Your task to perform on an android device: change alarm snooze length Image 0: 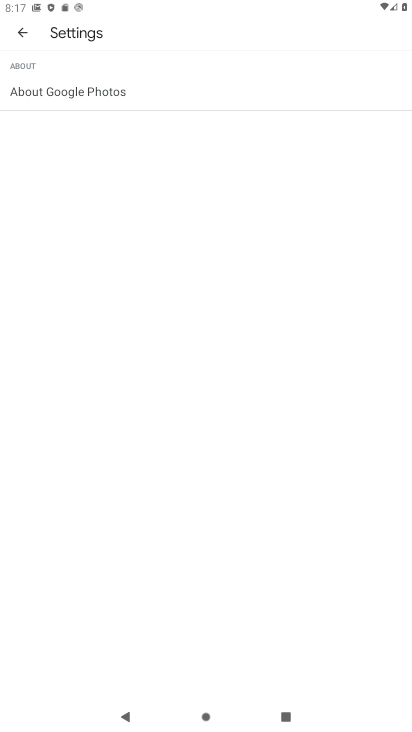
Step 0: press home button
Your task to perform on an android device: change alarm snooze length Image 1: 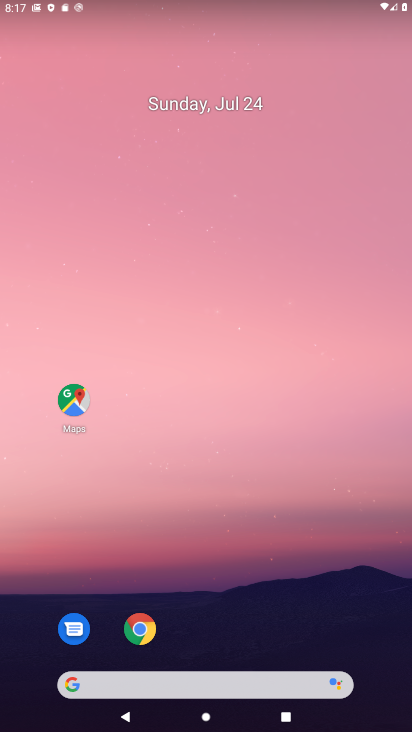
Step 1: drag from (222, 621) to (135, 12)
Your task to perform on an android device: change alarm snooze length Image 2: 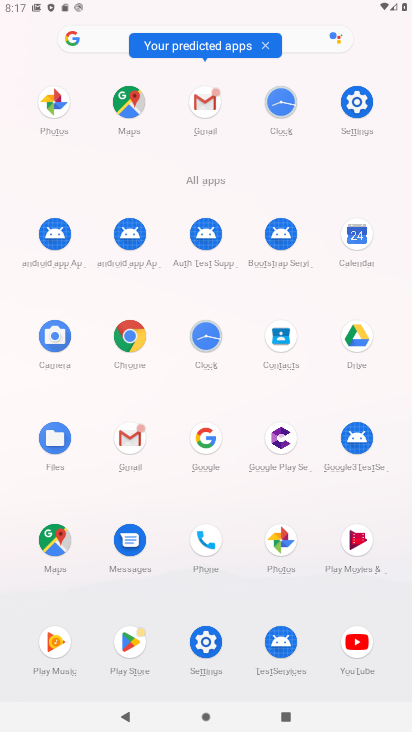
Step 2: click (201, 341)
Your task to perform on an android device: change alarm snooze length Image 3: 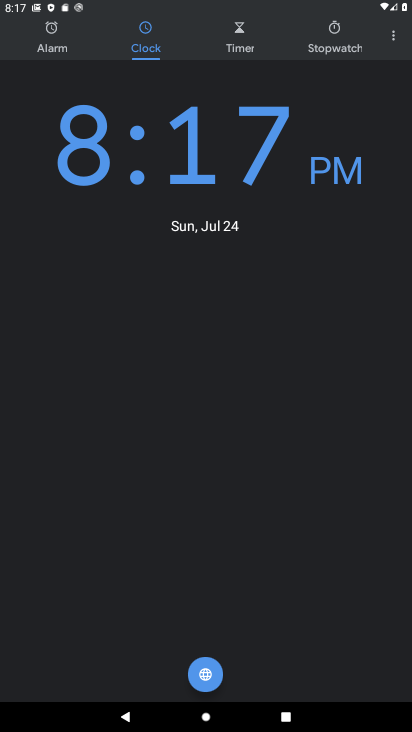
Step 3: click (392, 44)
Your task to perform on an android device: change alarm snooze length Image 4: 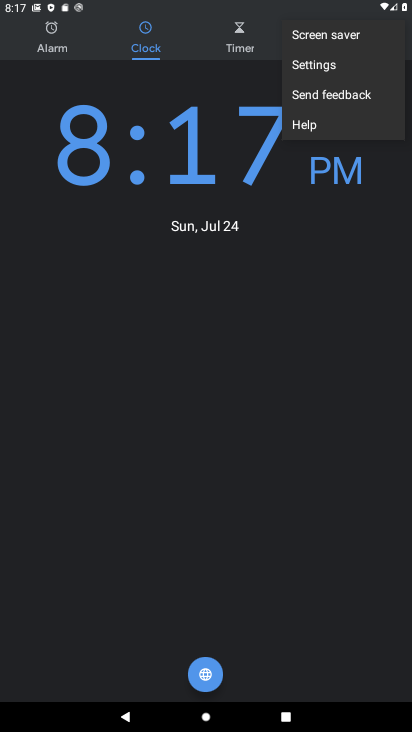
Step 4: click (321, 67)
Your task to perform on an android device: change alarm snooze length Image 5: 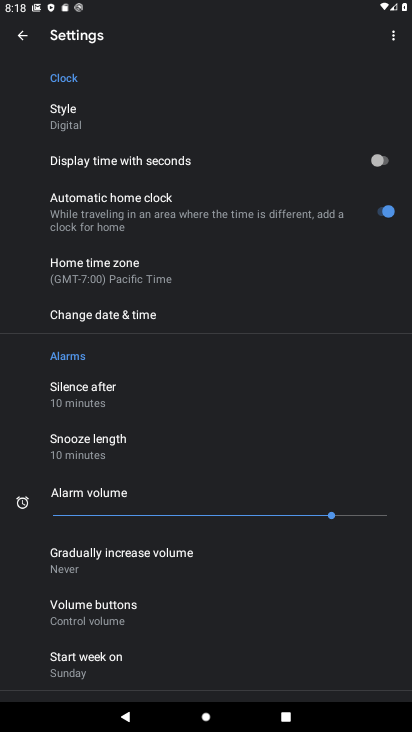
Step 5: drag from (101, 637) to (143, 366)
Your task to perform on an android device: change alarm snooze length Image 6: 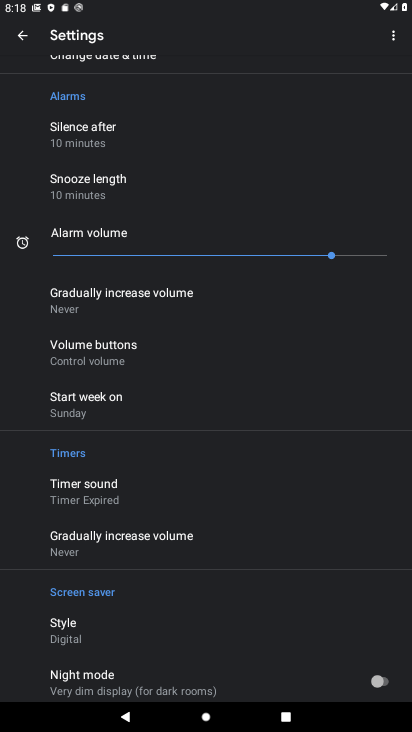
Step 6: drag from (120, 624) to (180, 341)
Your task to perform on an android device: change alarm snooze length Image 7: 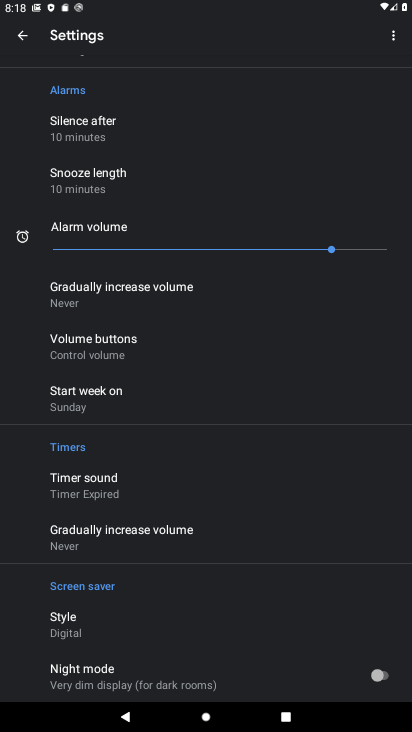
Step 7: click (118, 188)
Your task to perform on an android device: change alarm snooze length Image 8: 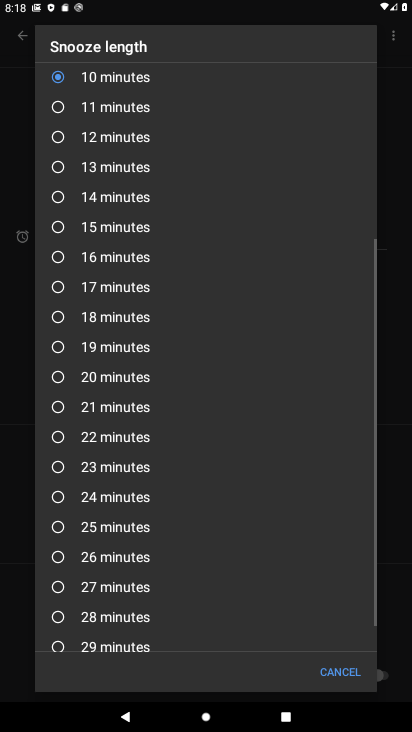
Step 8: click (100, 206)
Your task to perform on an android device: change alarm snooze length Image 9: 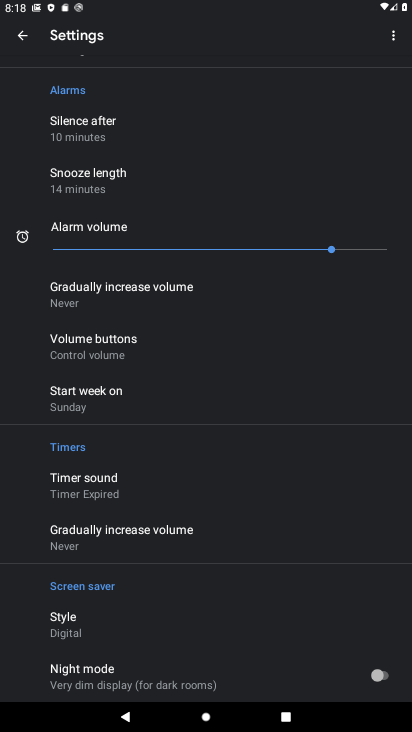
Step 9: task complete